Your task to perform on an android device: Open Google Image 0: 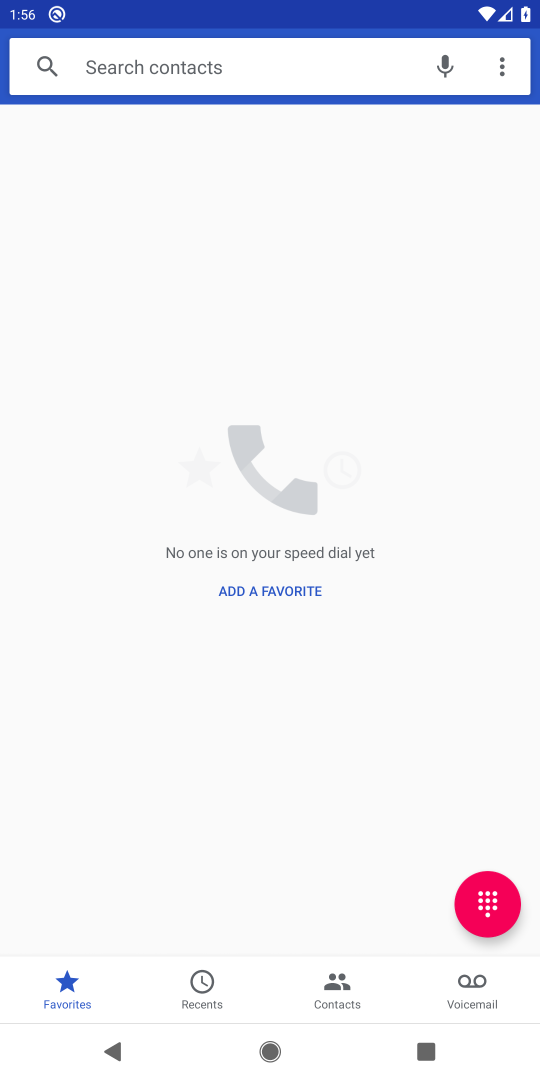
Step 0: press home button
Your task to perform on an android device: Open Google Image 1: 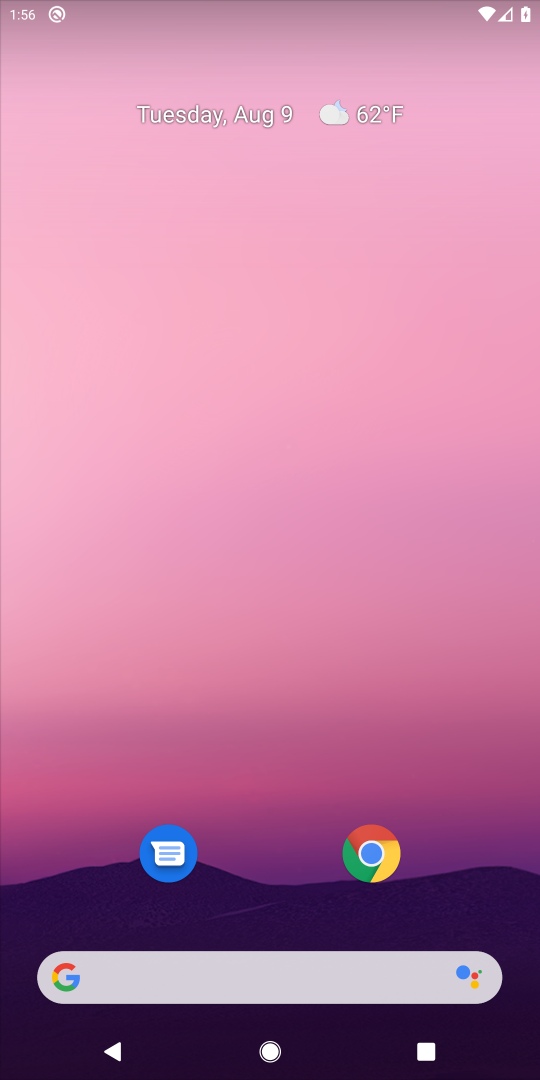
Step 1: drag from (208, 631) to (158, 199)
Your task to perform on an android device: Open Google Image 2: 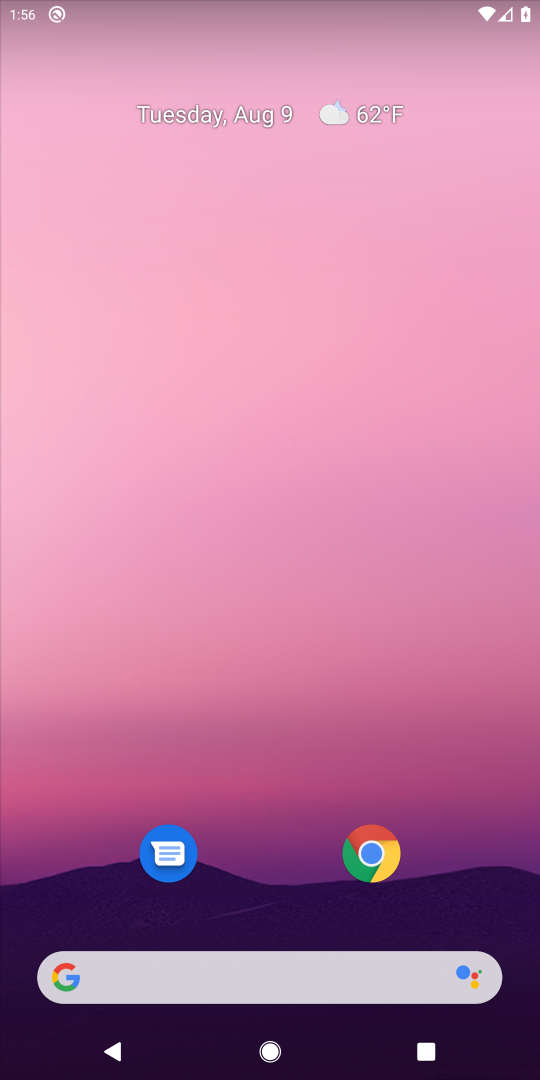
Step 2: drag from (261, 699) to (250, 188)
Your task to perform on an android device: Open Google Image 3: 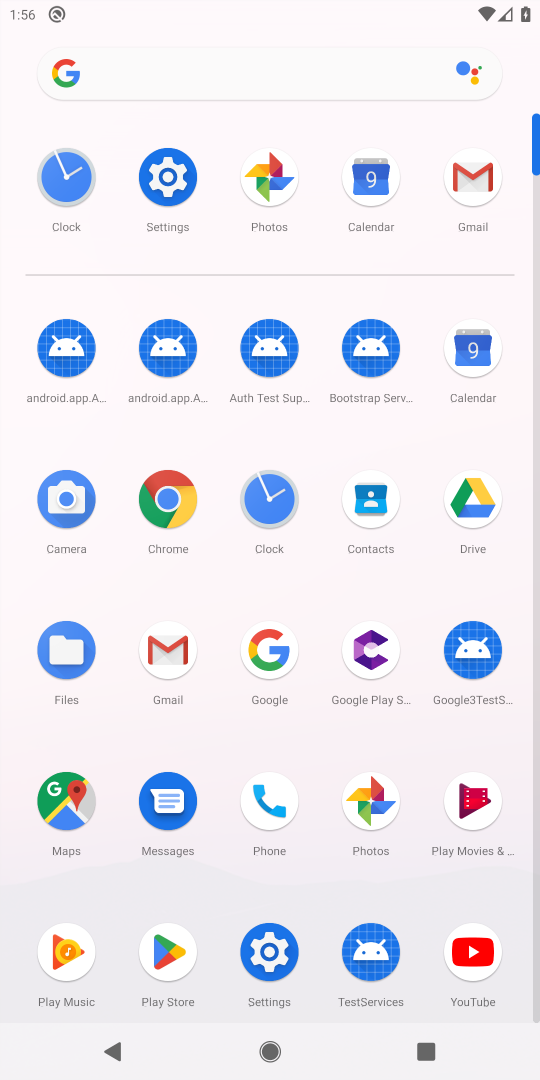
Step 3: click (281, 650)
Your task to perform on an android device: Open Google Image 4: 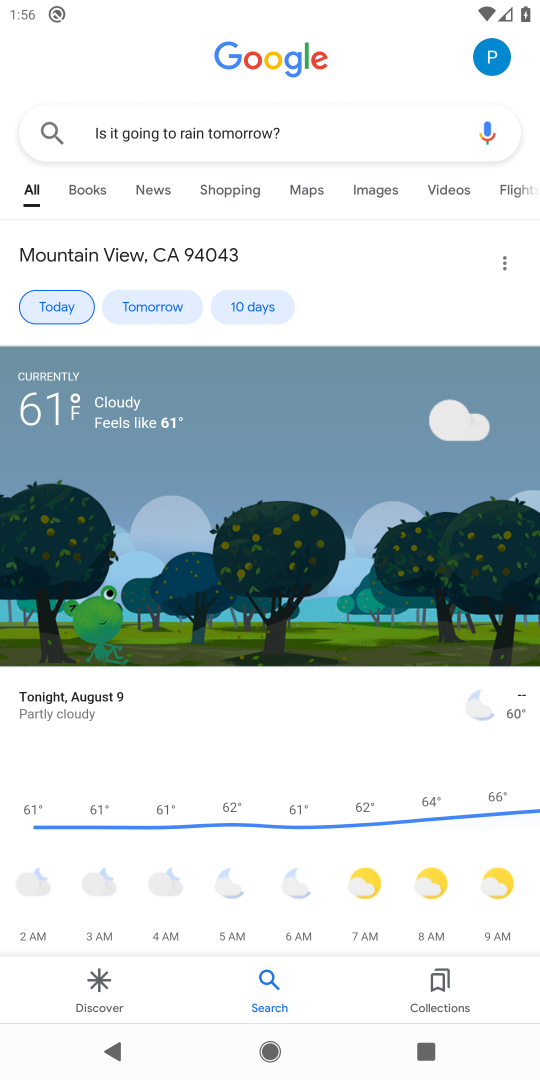
Step 4: click (265, 51)
Your task to perform on an android device: Open Google Image 5: 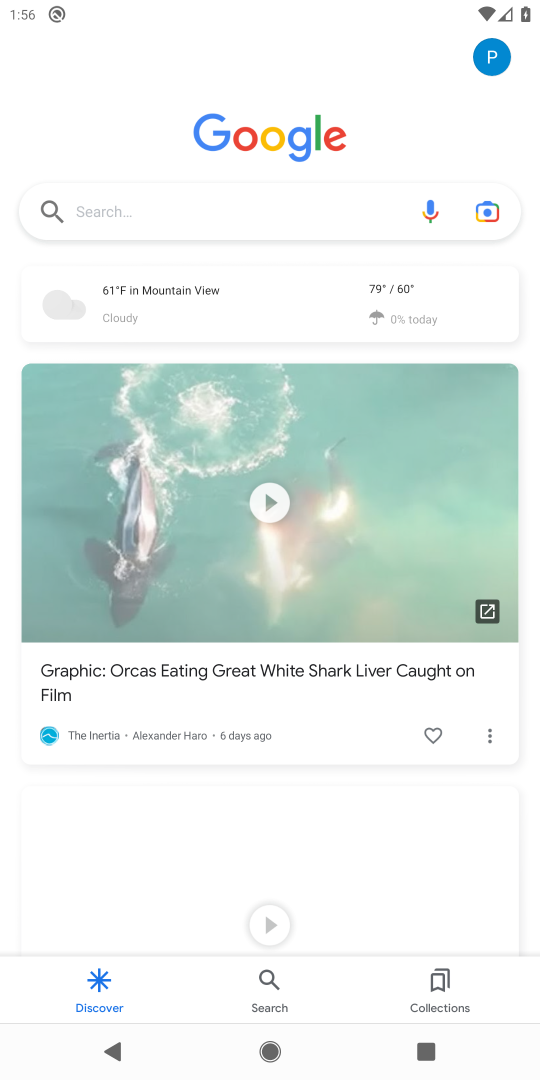
Step 5: task complete